Your task to perform on an android device: Search for seafood restaurants on Google Maps Image 0: 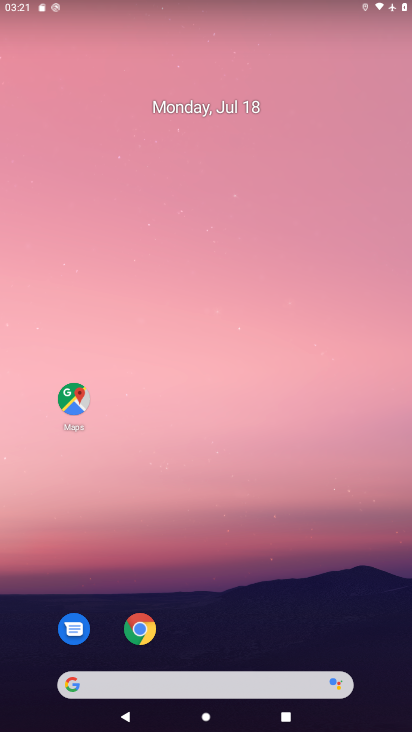
Step 0: drag from (330, 591) to (369, 180)
Your task to perform on an android device: Search for seafood restaurants on Google Maps Image 1: 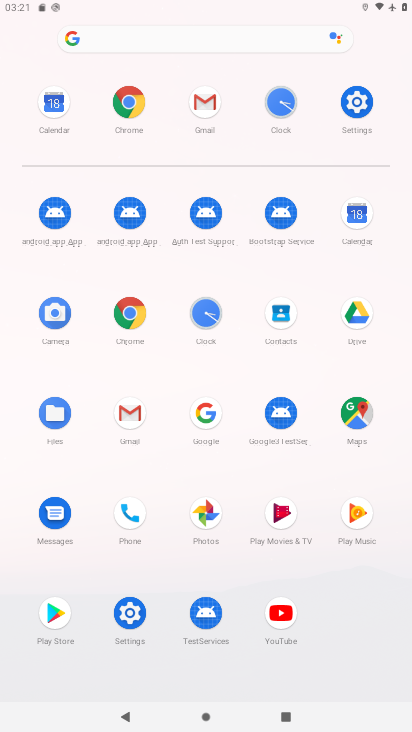
Step 1: click (351, 416)
Your task to perform on an android device: Search for seafood restaurants on Google Maps Image 2: 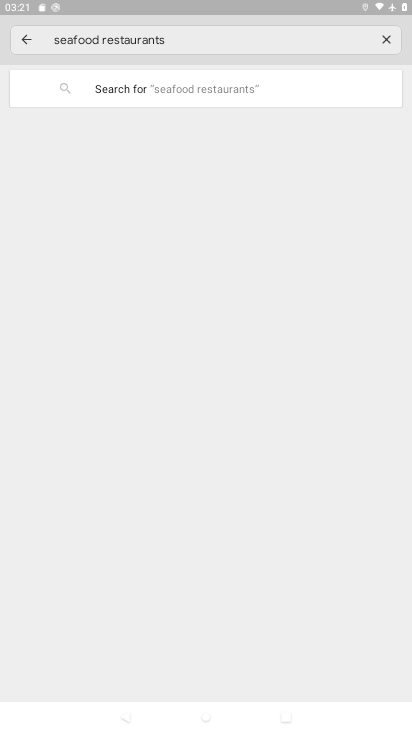
Step 2: click (387, 42)
Your task to perform on an android device: Search for seafood restaurants on Google Maps Image 3: 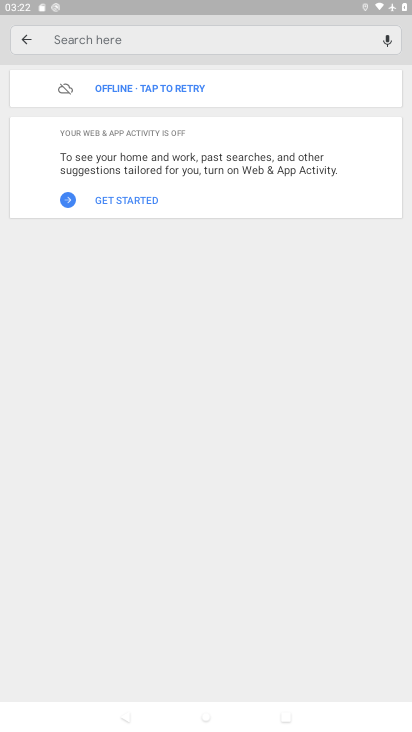
Step 3: click (264, 35)
Your task to perform on an android device: Search for seafood restaurants on Google Maps Image 4: 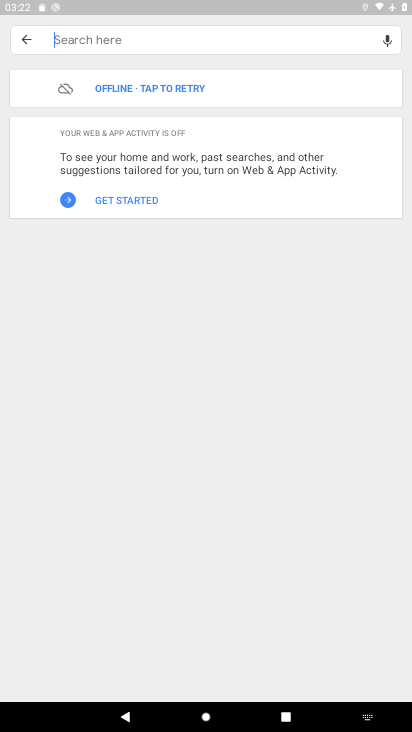
Step 4: type "seafood restaurants"
Your task to perform on an android device: Search for seafood restaurants on Google Maps Image 5: 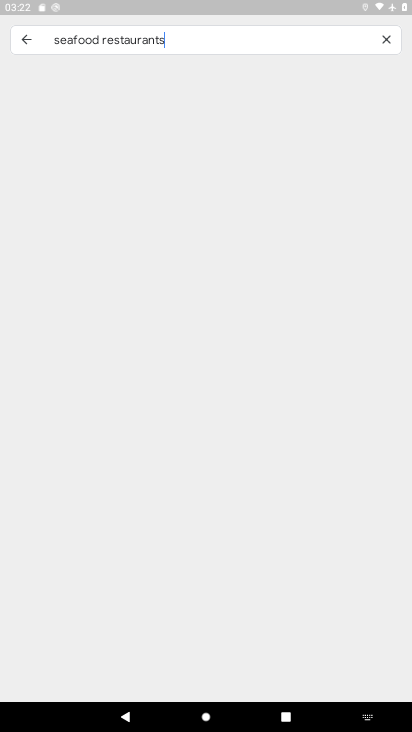
Step 5: task complete